Your task to perform on an android device: Search for Mexican restaurants on Maps Image 0: 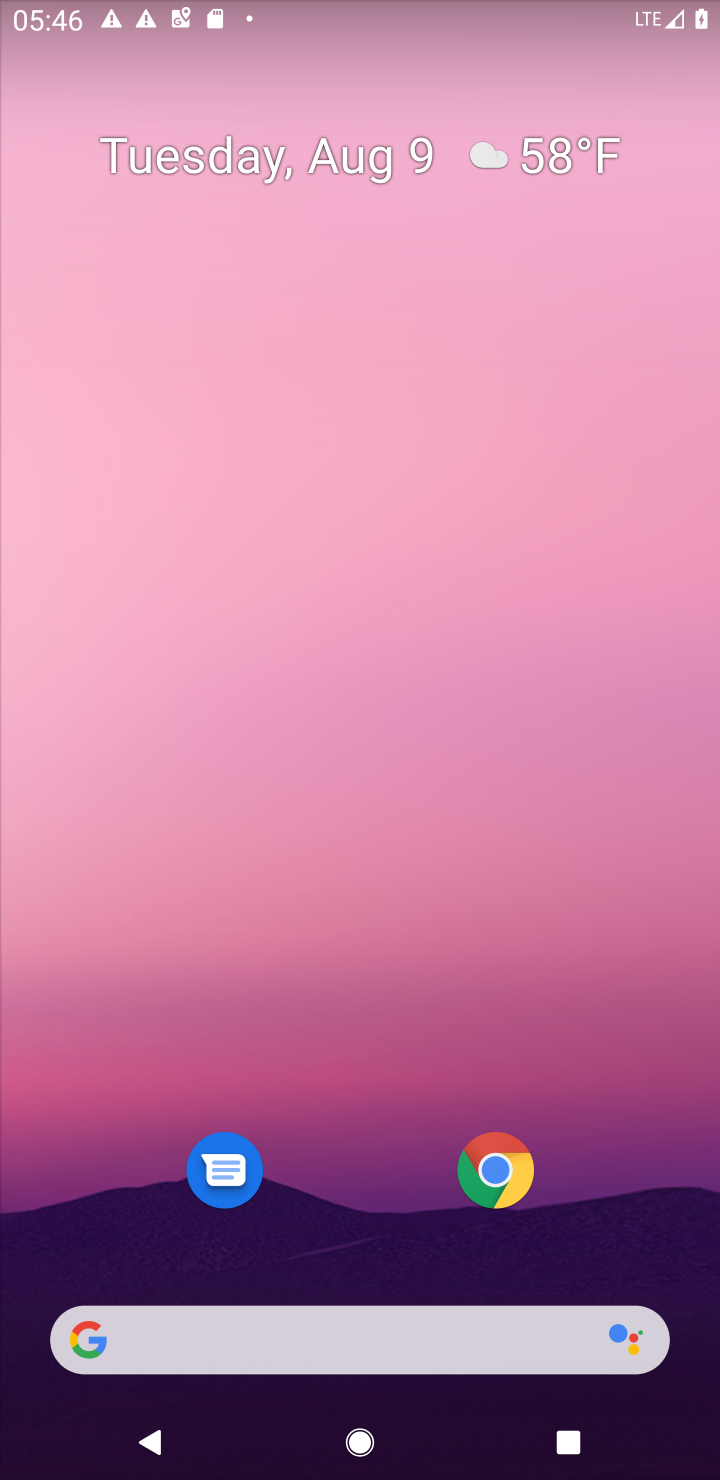
Step 0: drag from (410, 1265) to (425, 87)
Your task to perform on an android device: Search for Mexican restaurants on Maps Image 1: 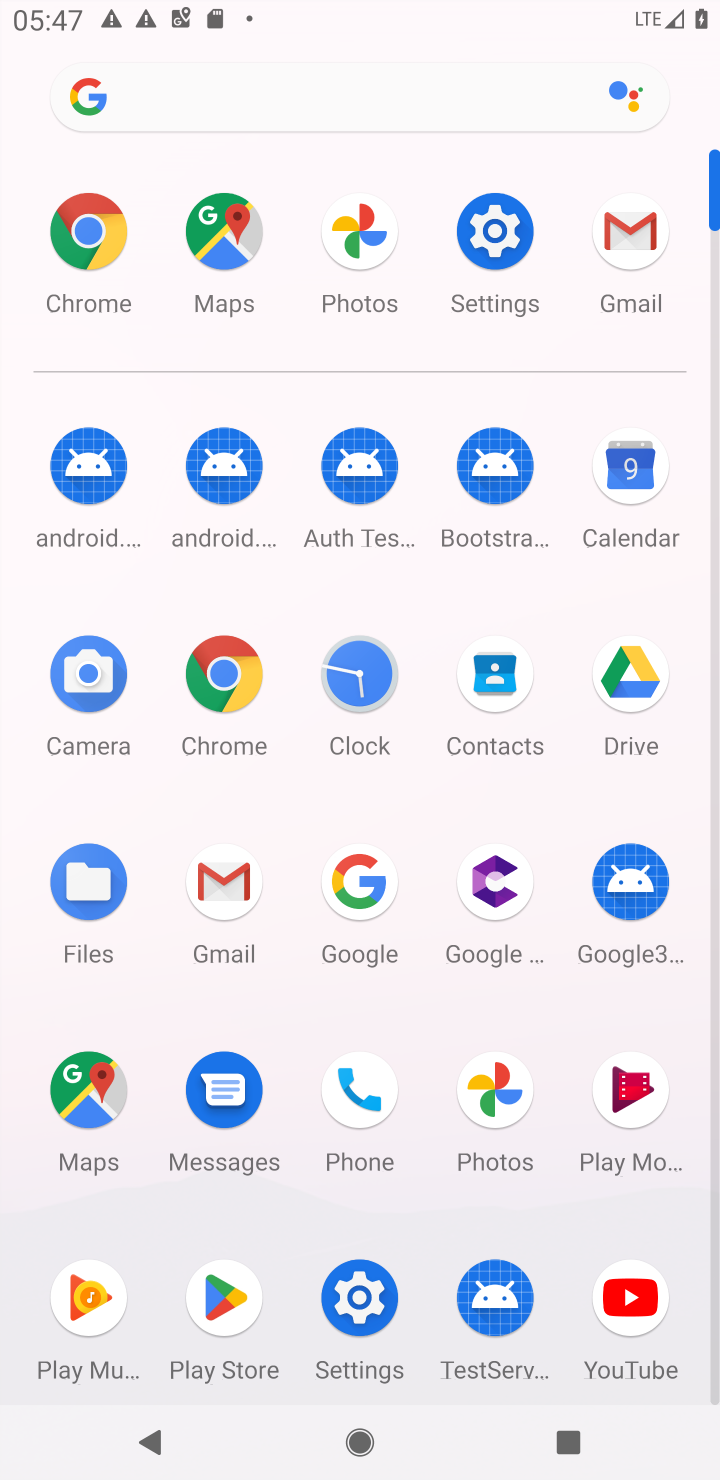
Step 1: click (201, 256)
Your task to perform on an android device: Search for Mexican restaurants on Maps Image 2: 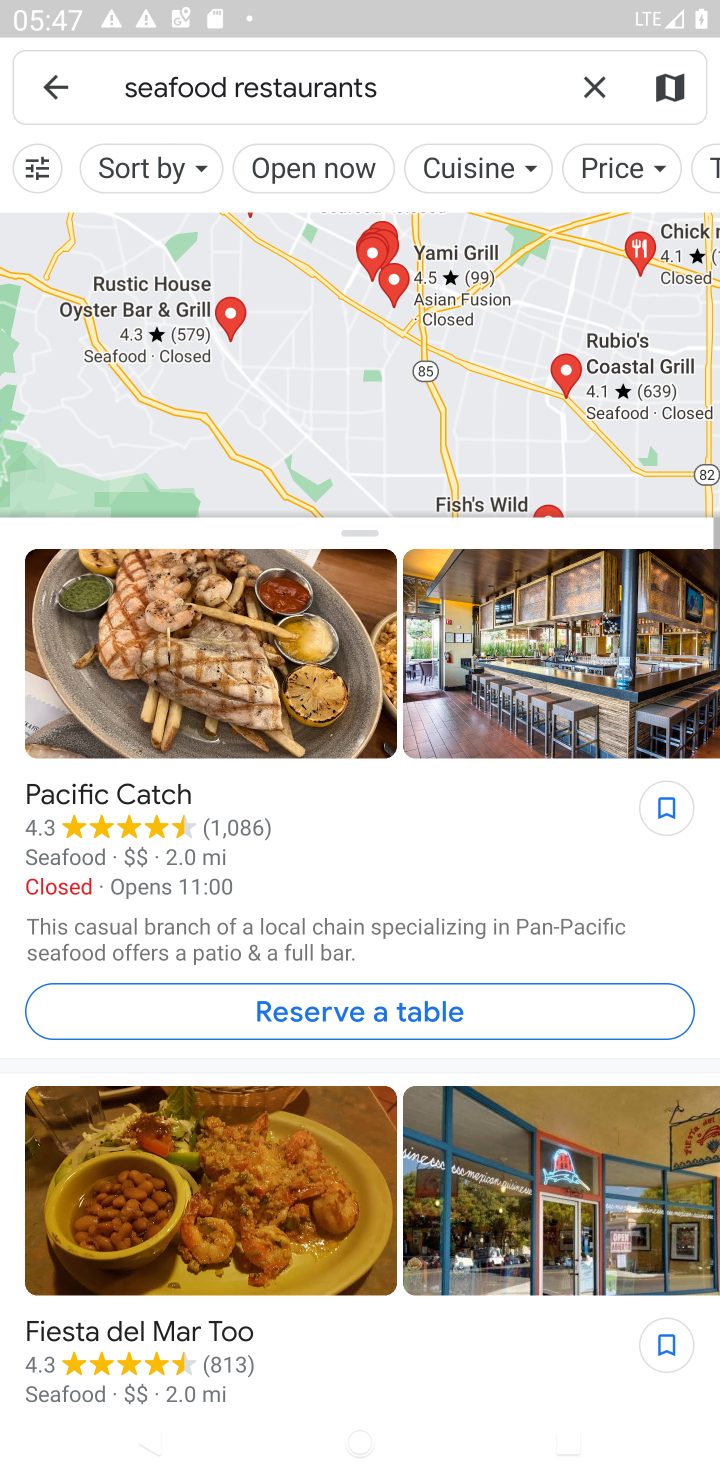
Step 2: click (604, 104)
Your task to perform on an android device: Search for Mexican restaurants on Maps Image 3: 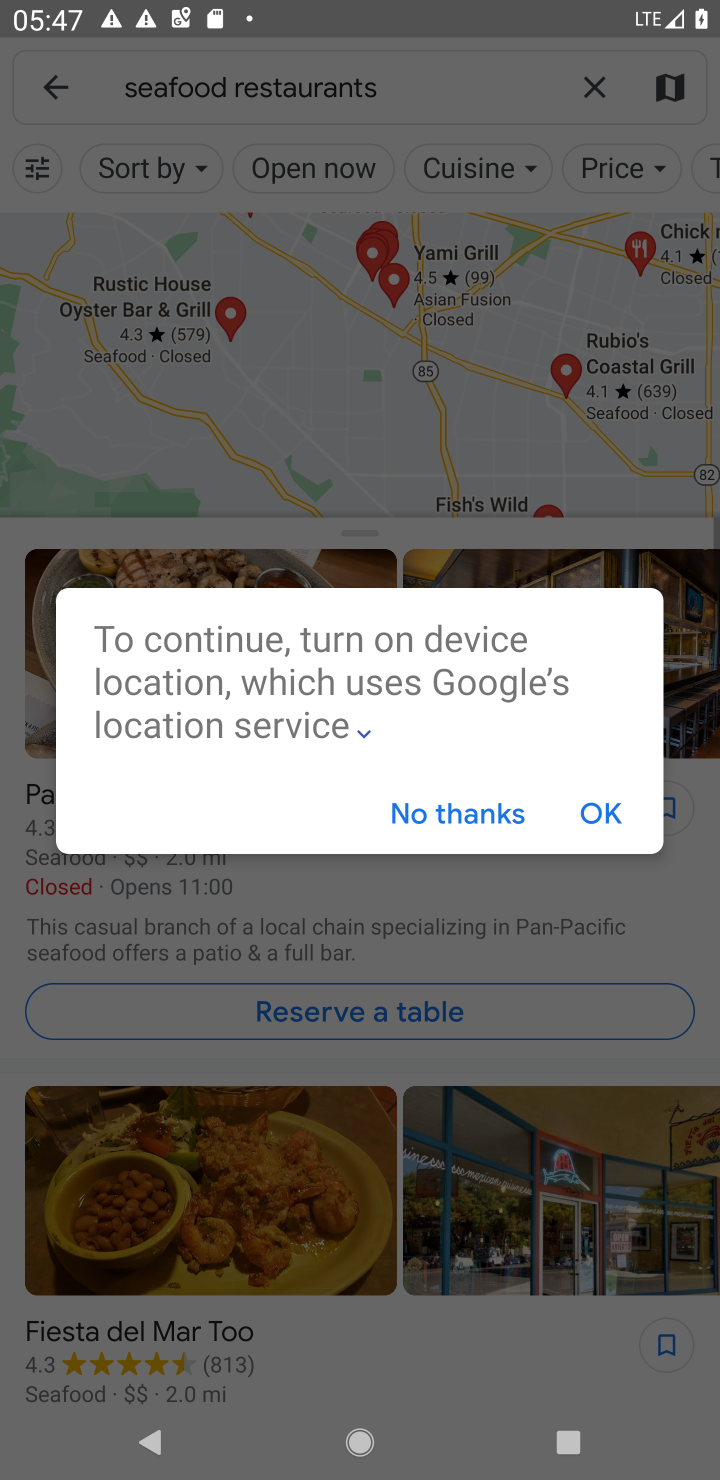
Step 3: click (584, 820)
Your task to perform on an android device: Search for Mexican restaurants on Maps Image 4: 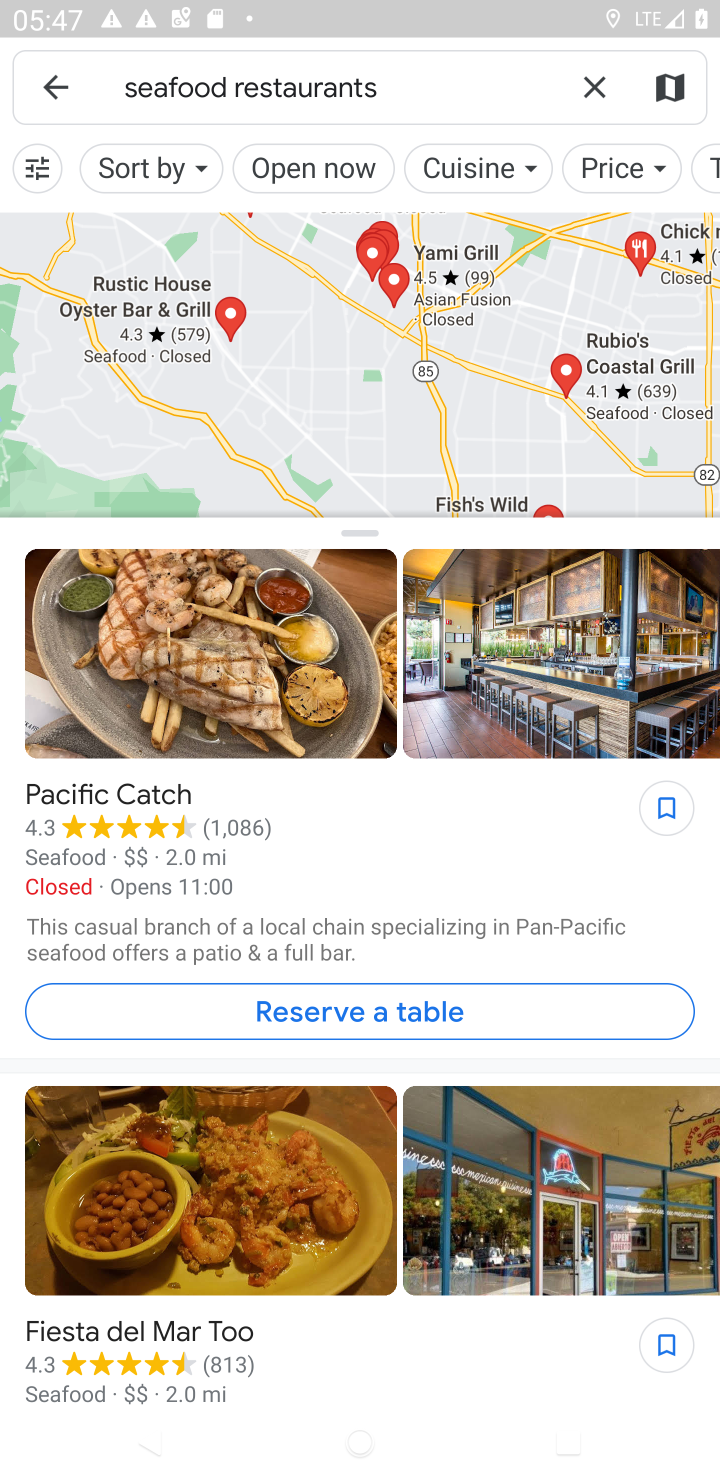
Step 4: click (592, 96)
Your task to perform on an android device: Search for Mexican restaurants on Maps Image 5: 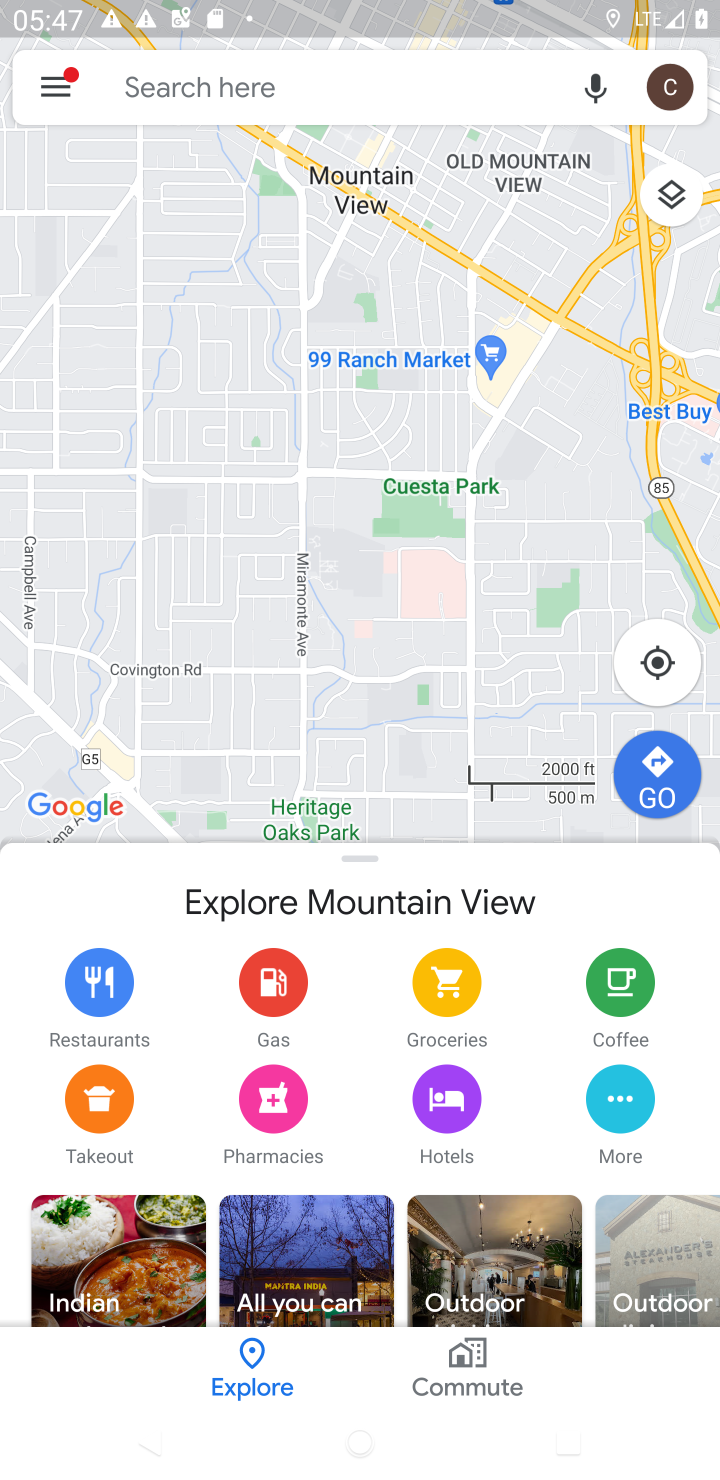
Step 5: click (356, 83)
Your task to perform on an android device: Search for Mexican restaurants on Maps Image 6: 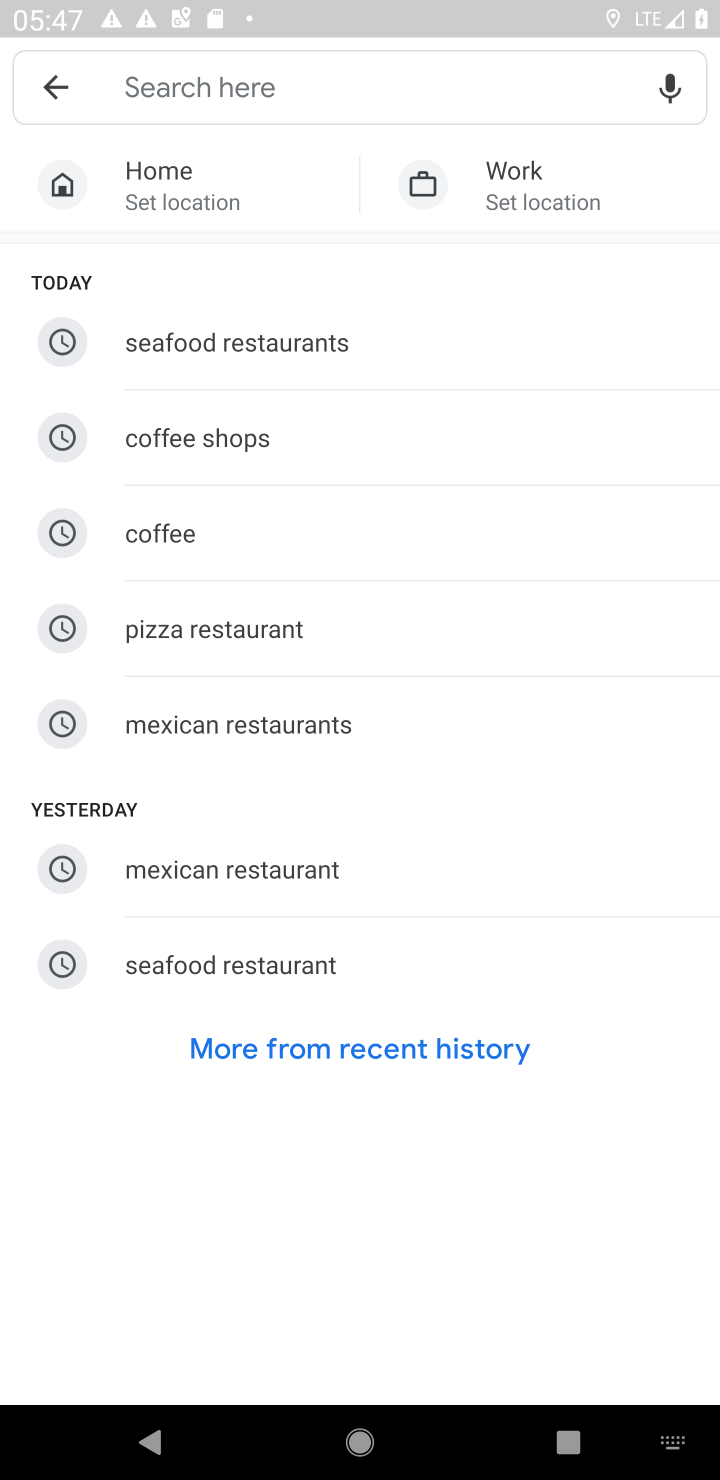
Step 6: click (244, 725)
Your task to perform on an android device: Search for Mexican restaurants on Maps Image 7: 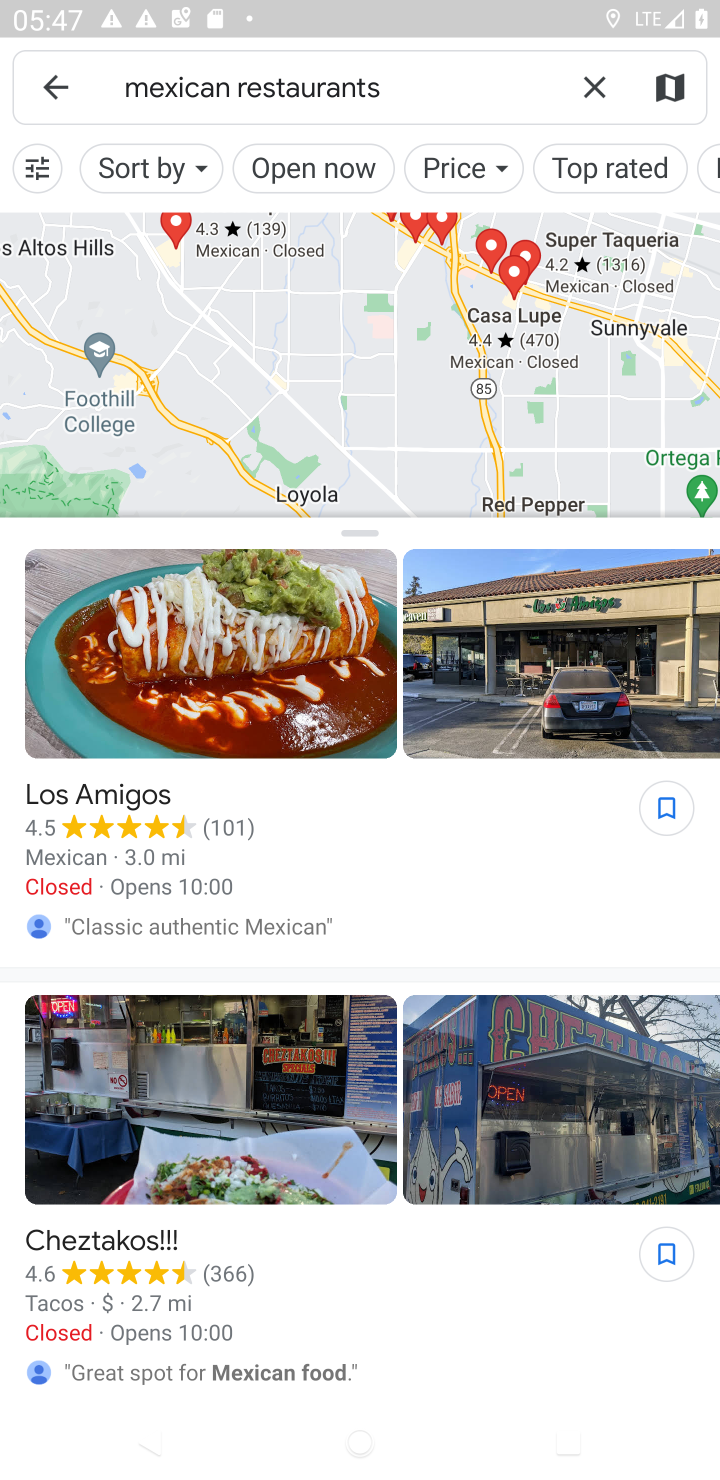
Step 7: task complete